Your task to perform on an android device: check storage Image 0: 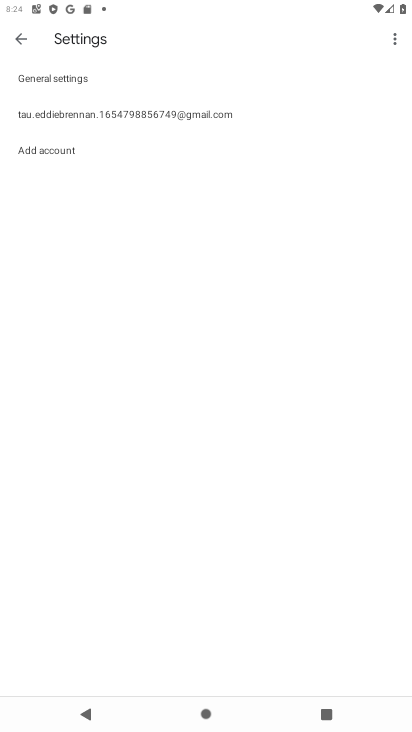
Step 0: press home button
Your task to perform on an android device: check storage Image 1: 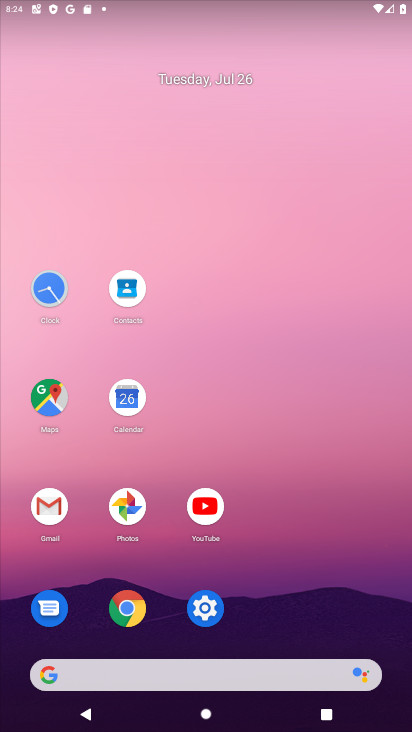
Step 1: click (202, 612)
Your task to perform on an android device: check storage Image 2: 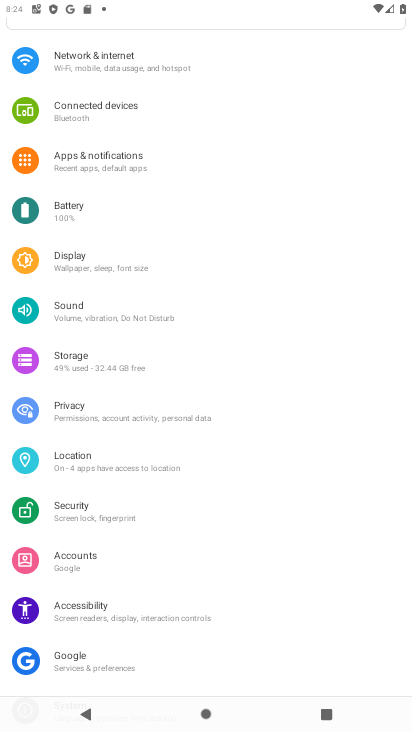
Step 2: click (64, 354)
Your task to perform on an android device: check storage Image 3: 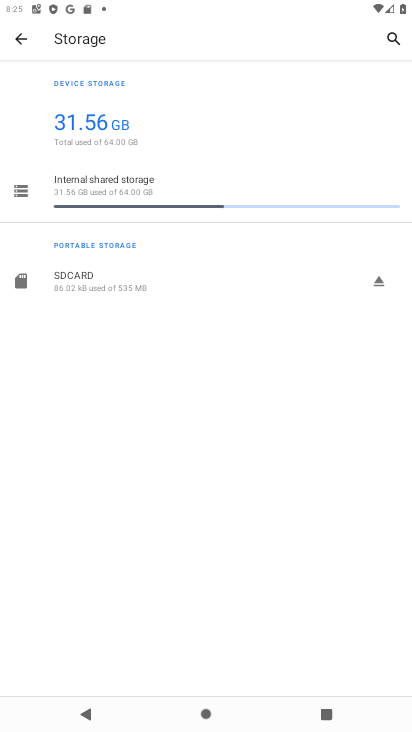
Step 3: task complete